Your task to perform on an android device: turn off location Image 0: 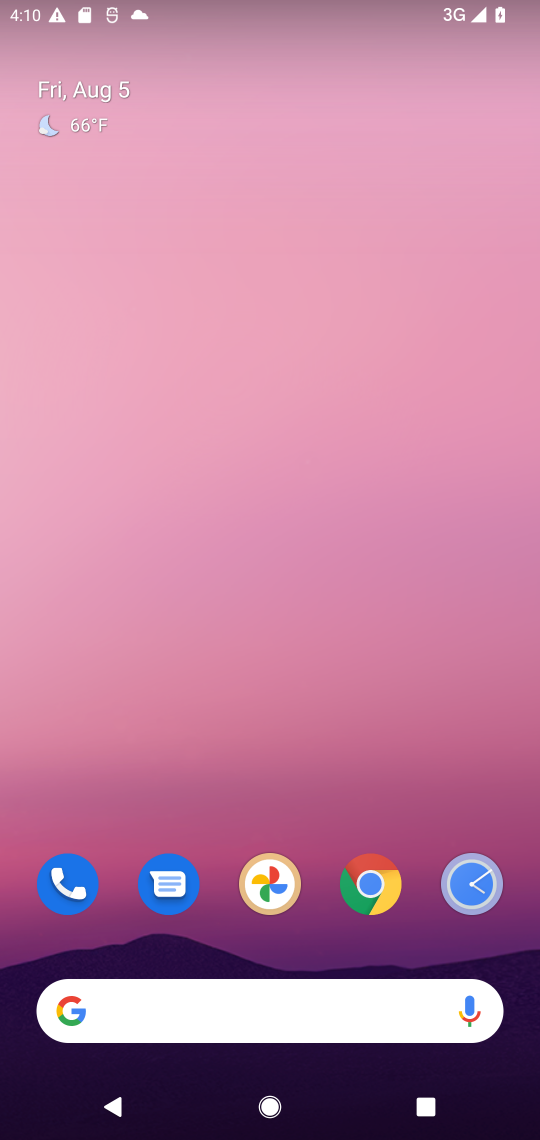
Step 0: drag from (406, 938) to (183, 0)
Your task to perform on an android device: turn off location Image 1: 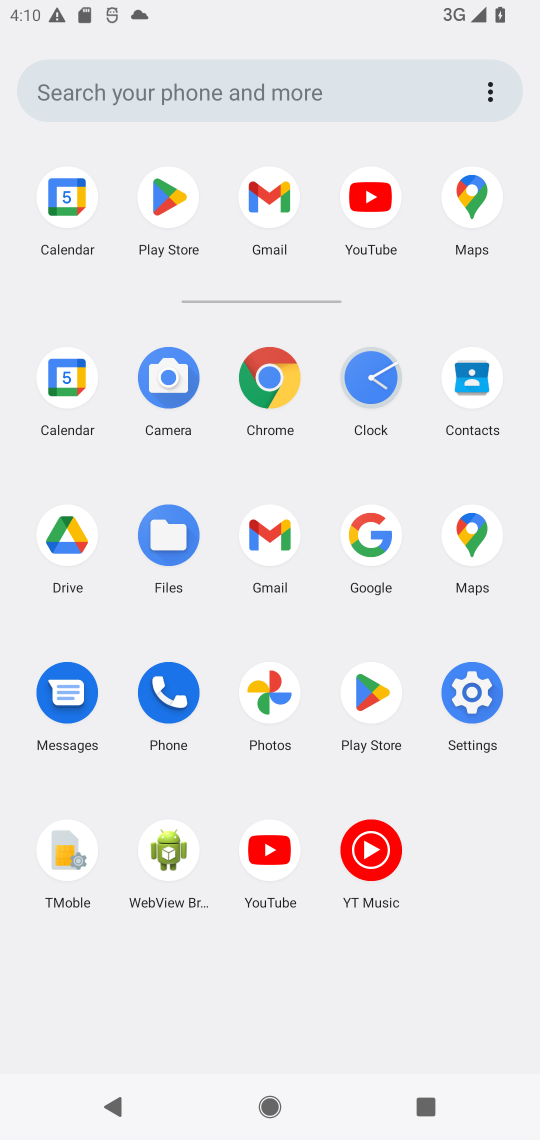
Step 1: click (481, 688)
Your task to perform on an android device: turn off location Image 2: 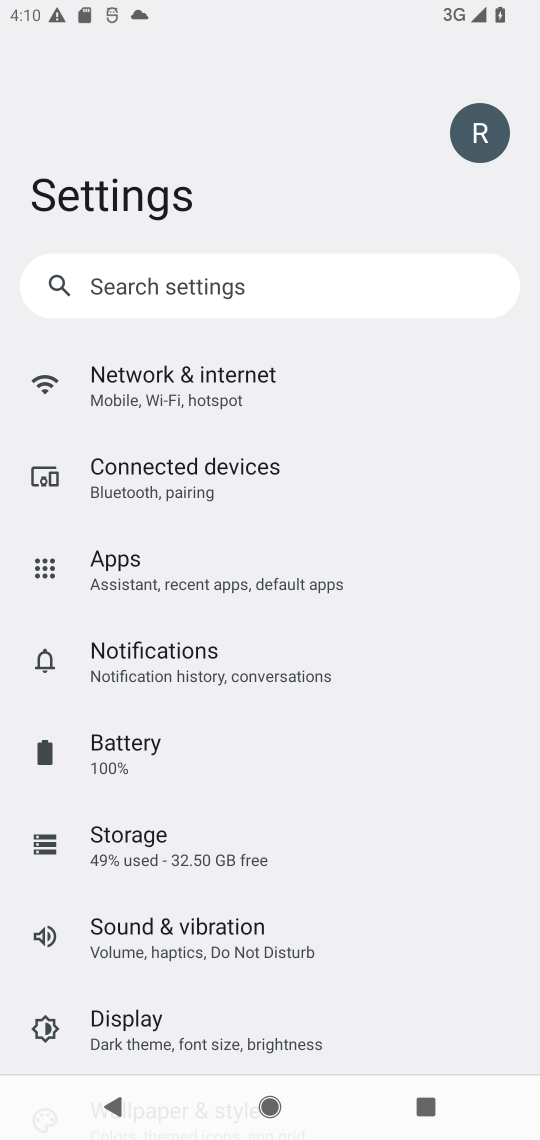
Step 2: drag from (211, 999) to (198, 320)
Your task to perform on an android device: turn off location Image 3: 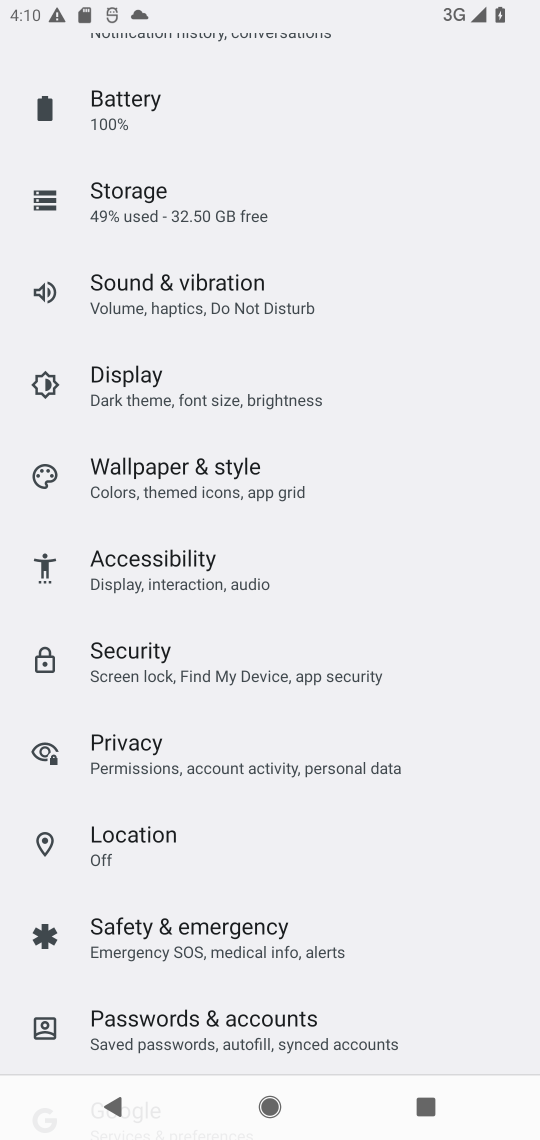
Step 3: click (171, 839)
Your task to perform on an android device: turn off location Image 4: 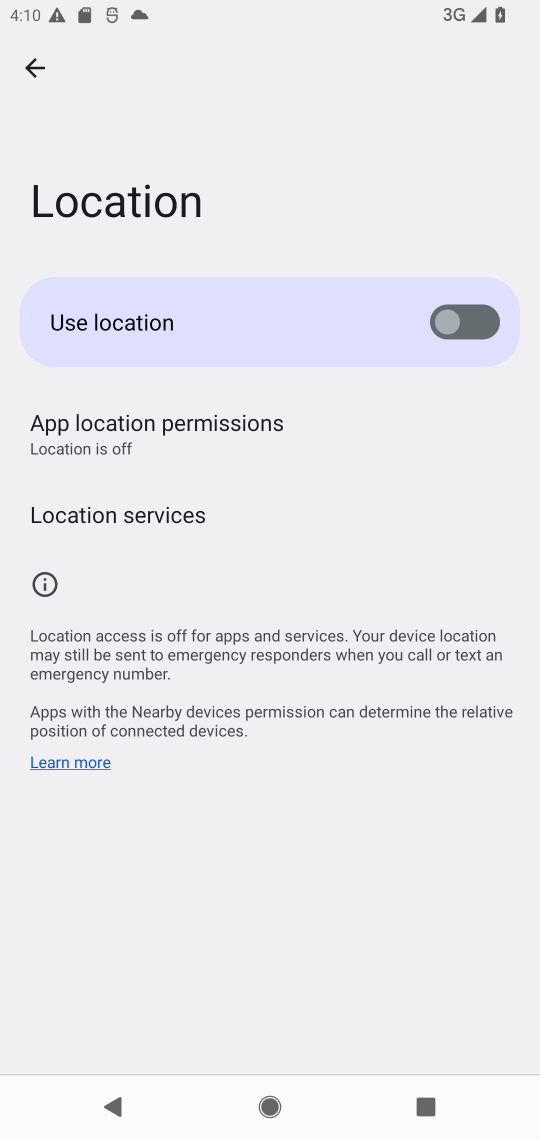
Step 4: task complete